Your task to perform on an android device: Go to privacy settings Image 0: 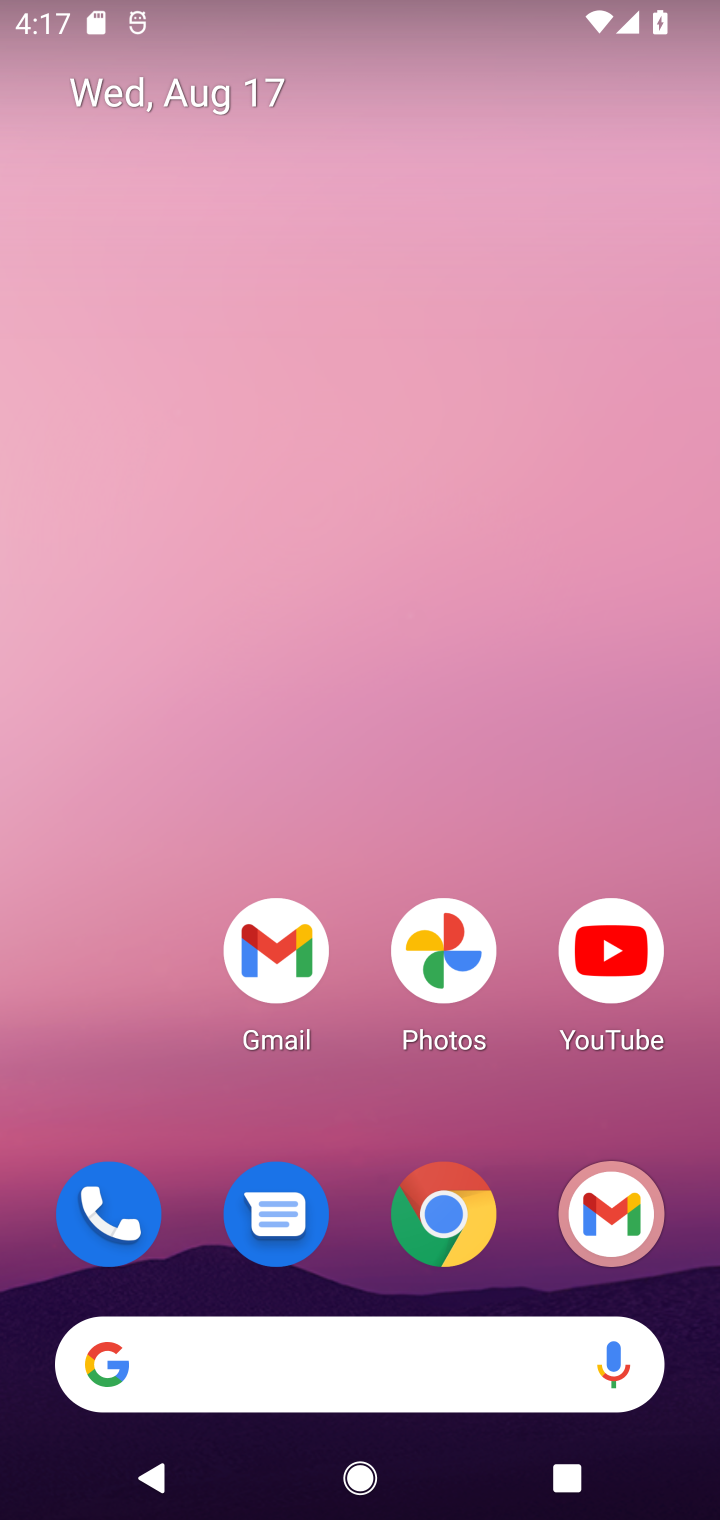
Step 0: drag from (355, 1248) to (527, 207)
Your task to perform on an android device: Go to privacy settings Image 1: 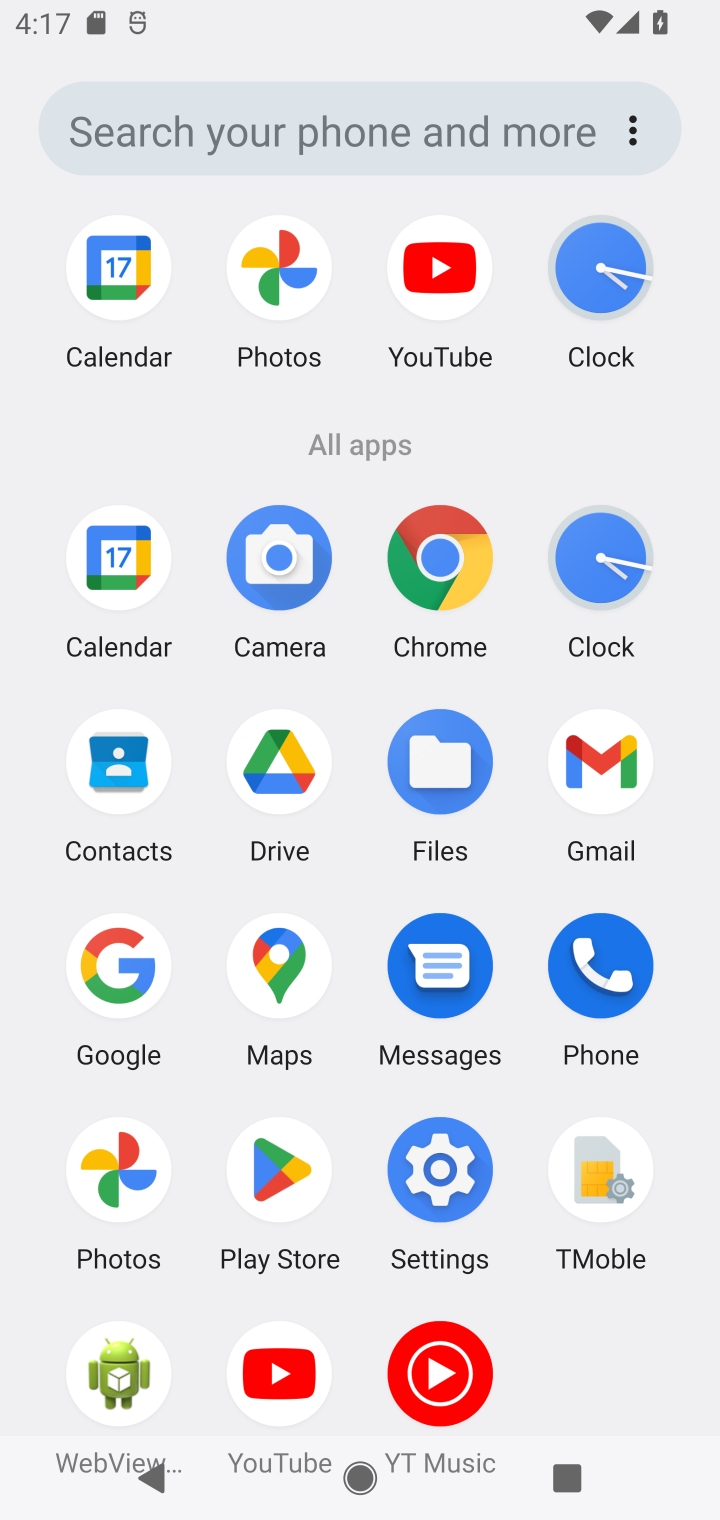
Step 1: click (434, 1192)
Your task to perform on an android device: Go to privacy settings Image 2: 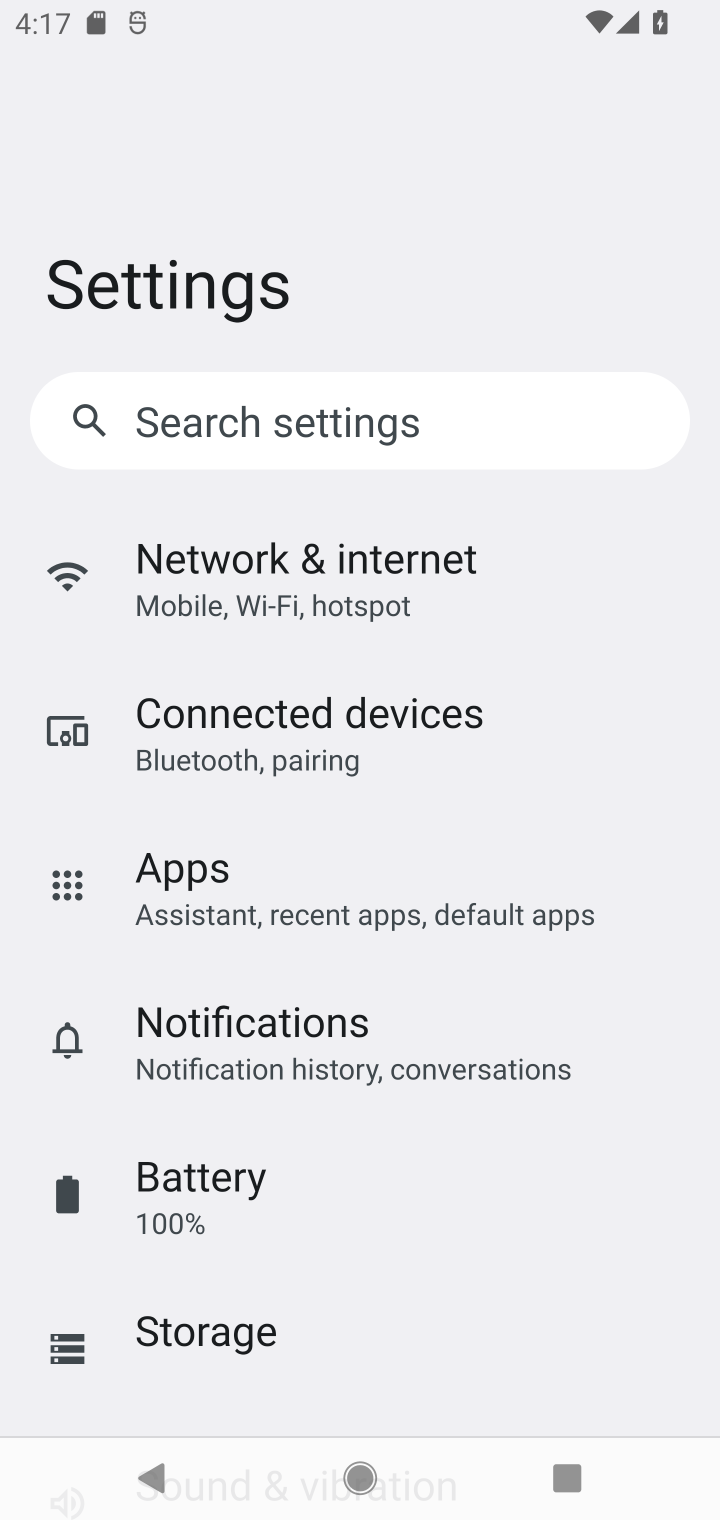
Step 2: drag from (572, 1266) to (620, 395)
Your task to perform on an android device: Go to privacy settings Image 3: 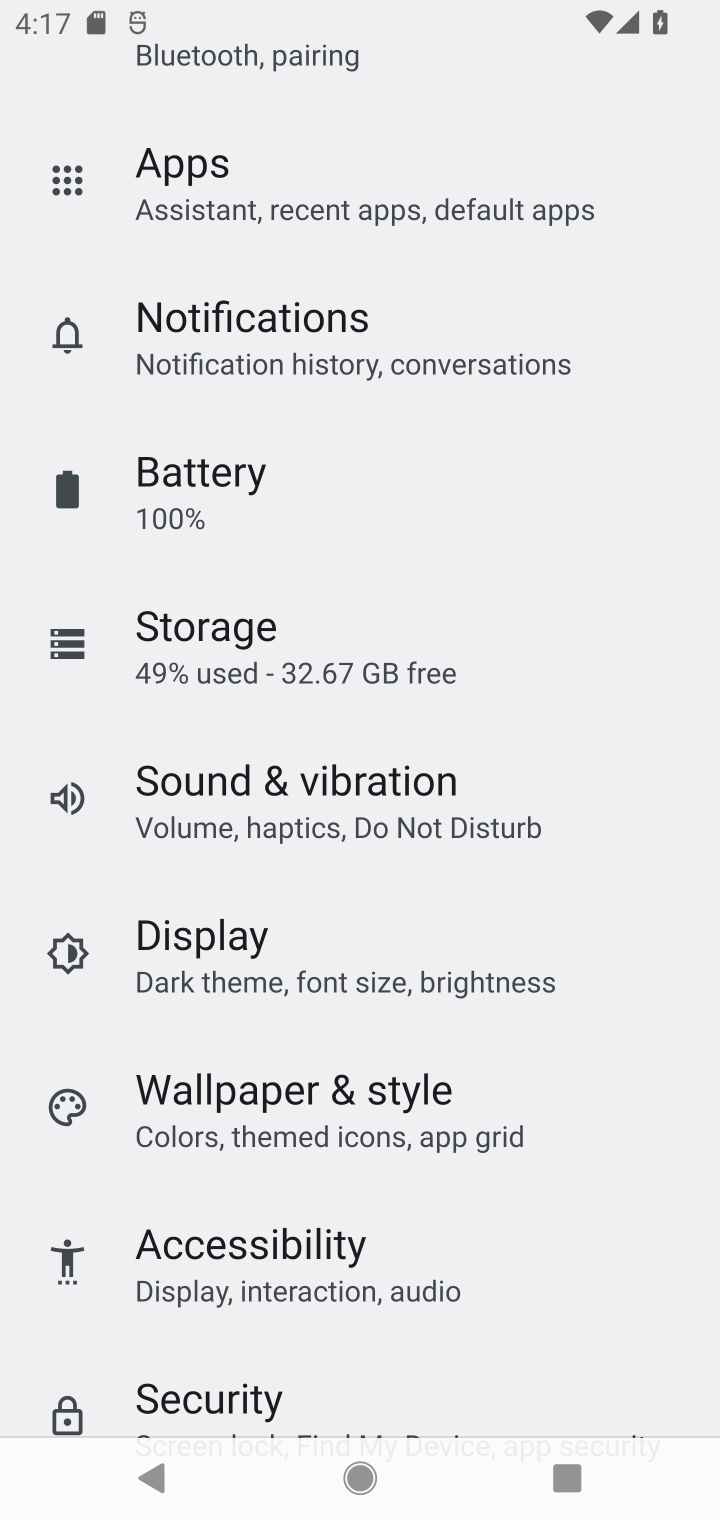
Step 3: drag from (309, 1230) to (400, 410)
Your task to perform on an android device: Go to privacy settings Image 4: 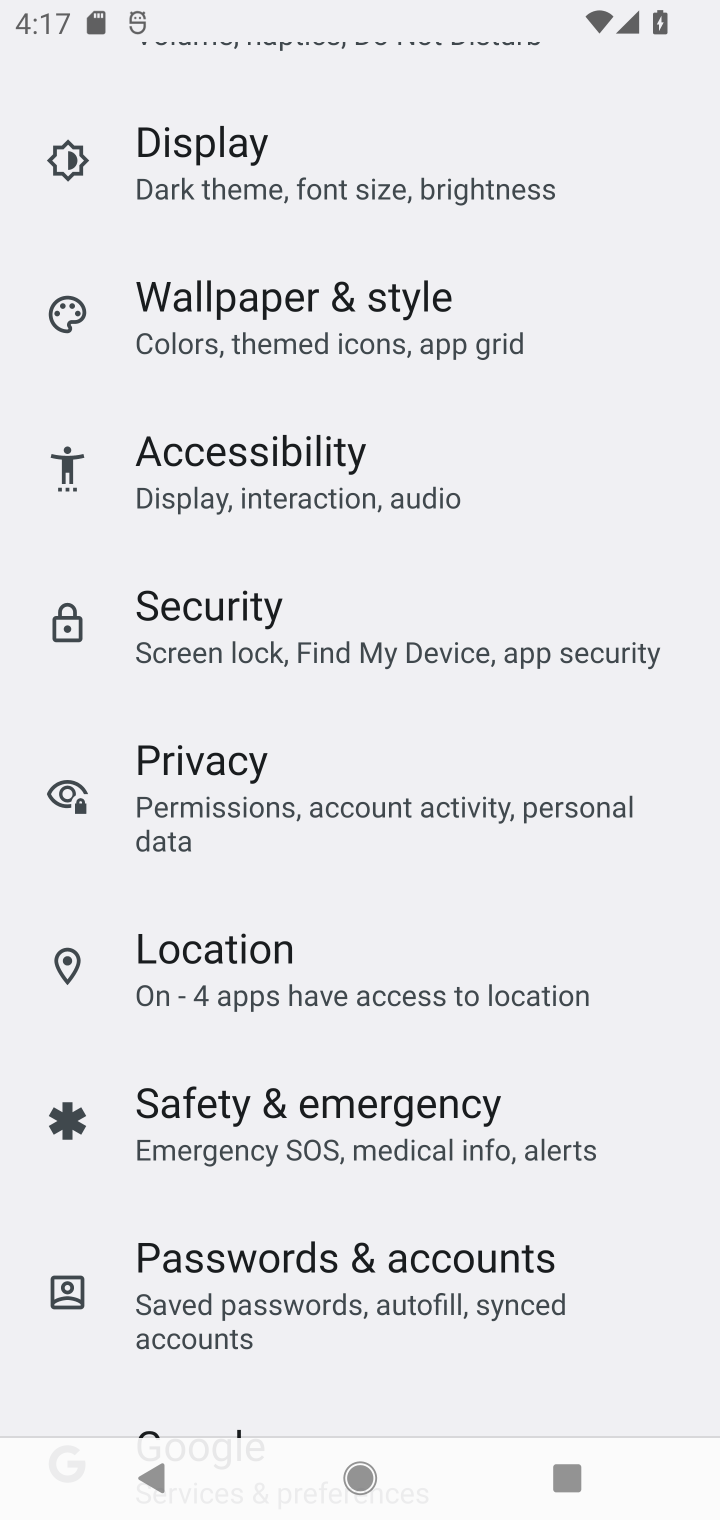
Step 4: click (302, 834)
Your task to perform on an android device: Go to privacy settings Image 5: 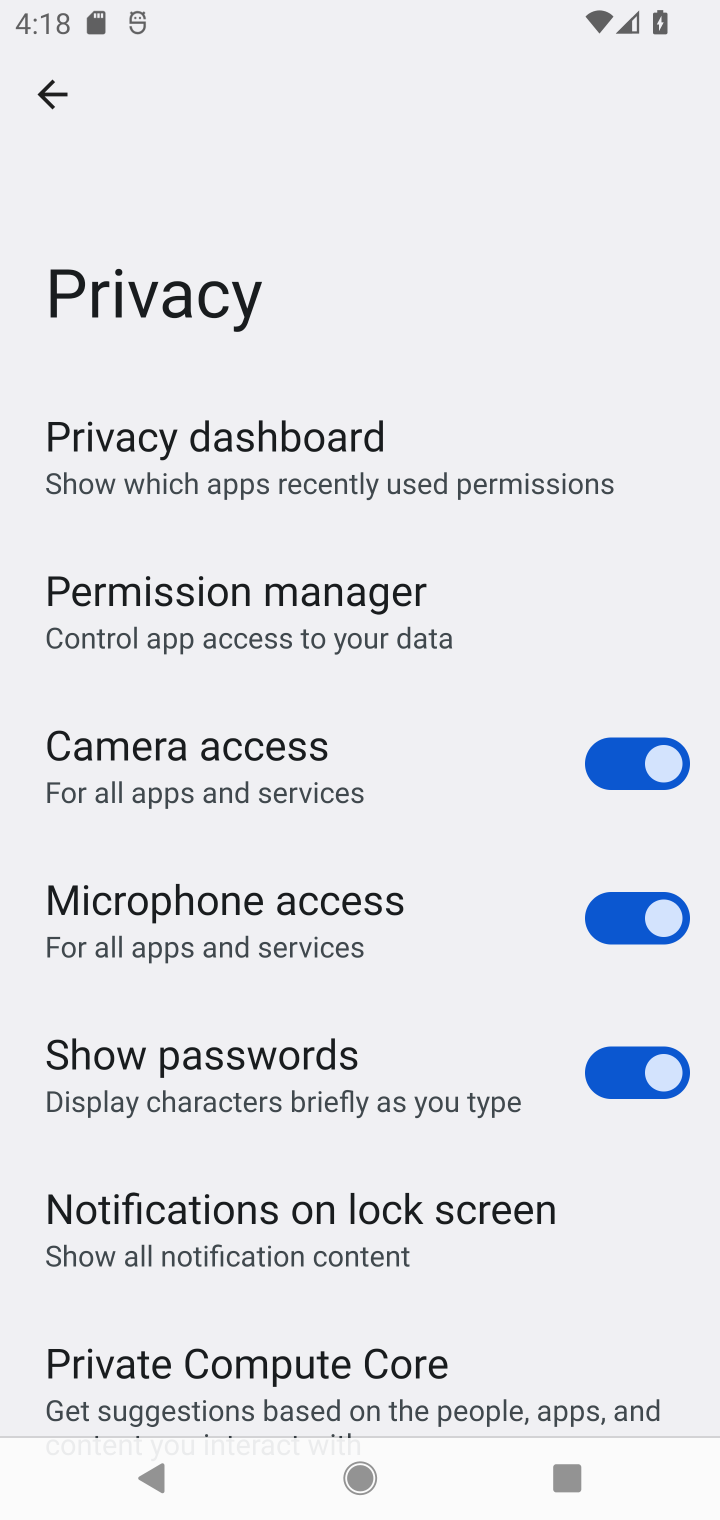
Step 5: task complete